Your task to perform on an android device: open app "Venmo" Image 0: 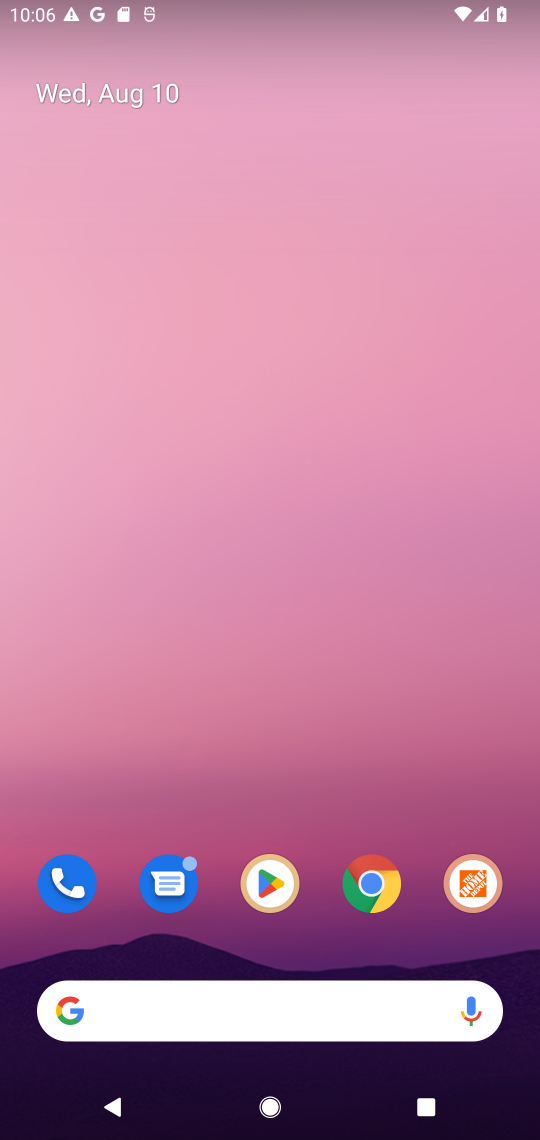
Step 0: press home button
Your task to perform on an android device: open app "Venmo" Image 1: 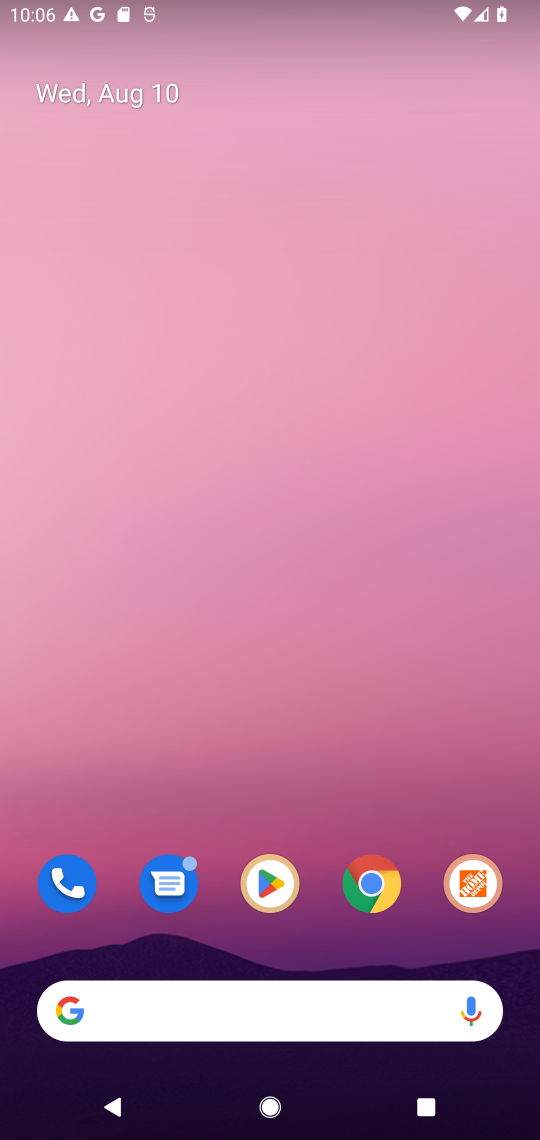
Step 1: drag from (423, 768) to (426, 91)
Your task to perform on an android device: open app "Venmo" Image 2: 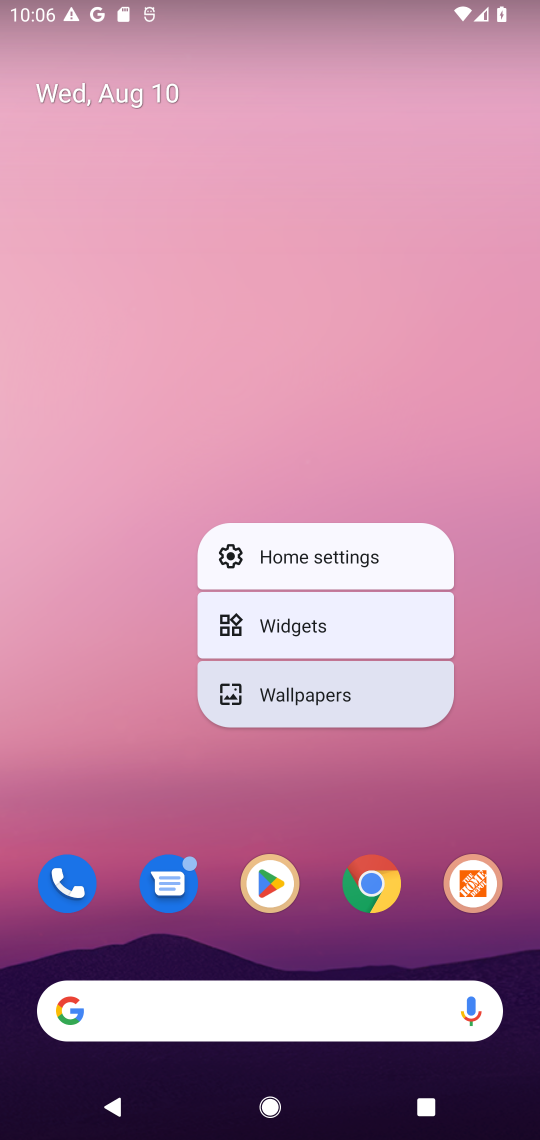
Step 2: click (484, 745)
Your task to perform on an android device: open app "Venmo" Image 3: 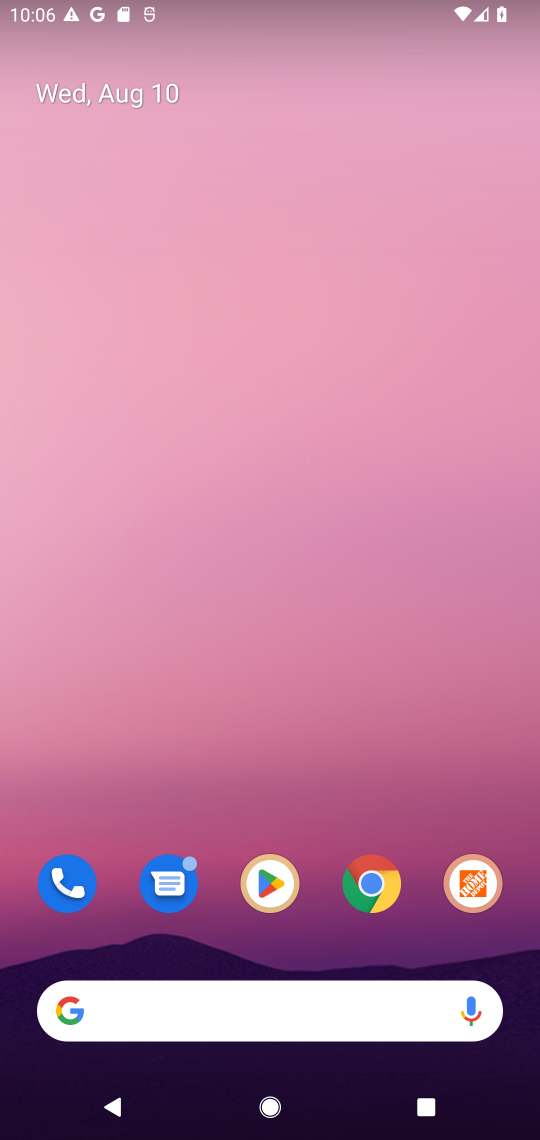
Step 3: drag from (379, 621) to (354, 51)
Your task to perform on an android device: open app "Venmo" Image 4: 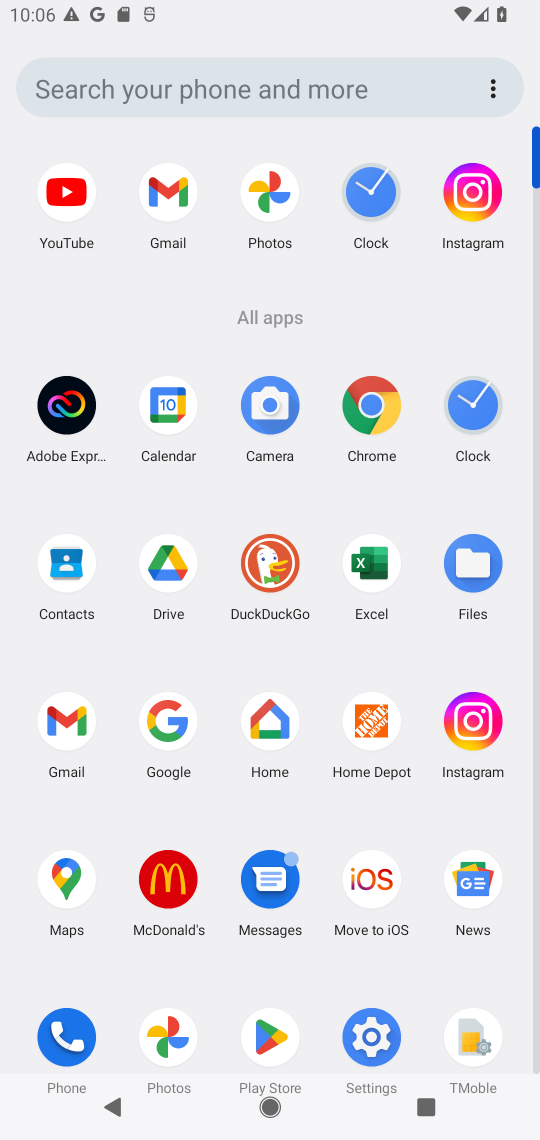
Step 4: click (255, 1035)
Your task to perform on an android device: open app "Venmo" Image 5: 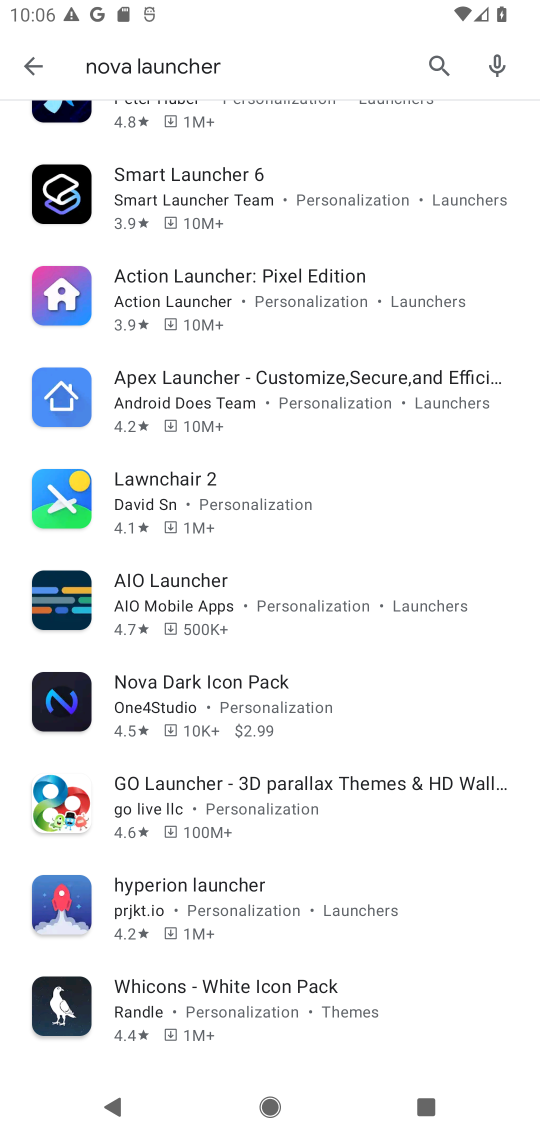
Step 5: click (439, 66)
Your task to perform on an android device: open app "Venmo" Image 6: 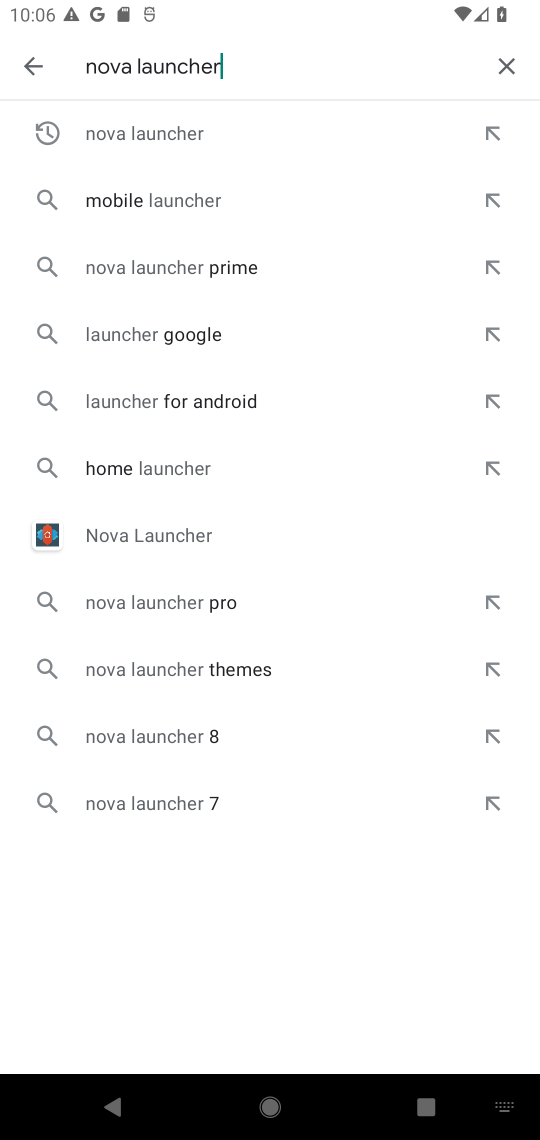
Step 6: click (508, 60)
Your task to perform on an android device: open app "Venmo" Image 7: 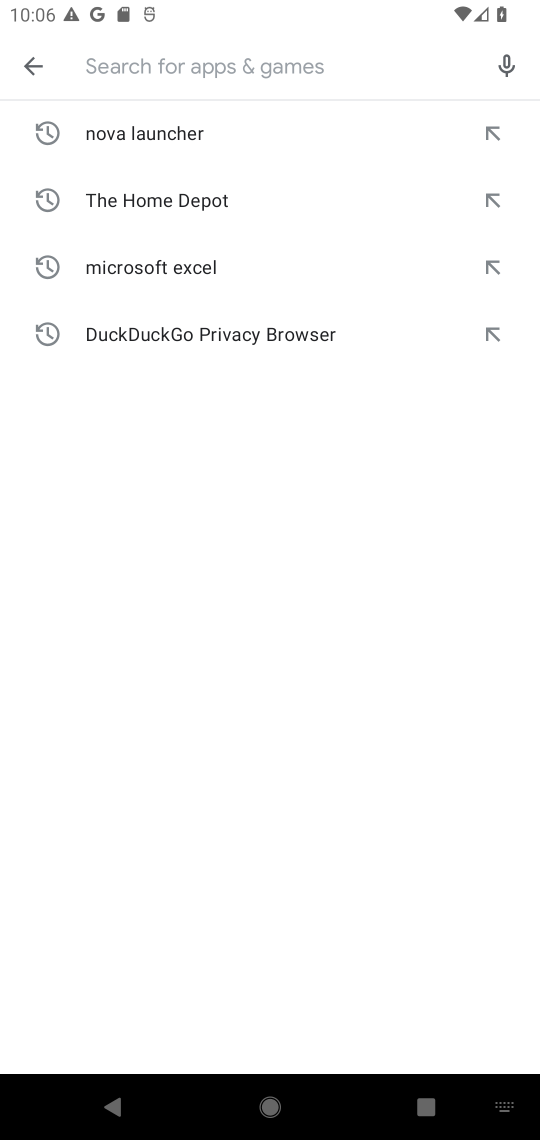
Step 7: press enter
Your task to perform on an android device: open app "Venmo" Image 8: 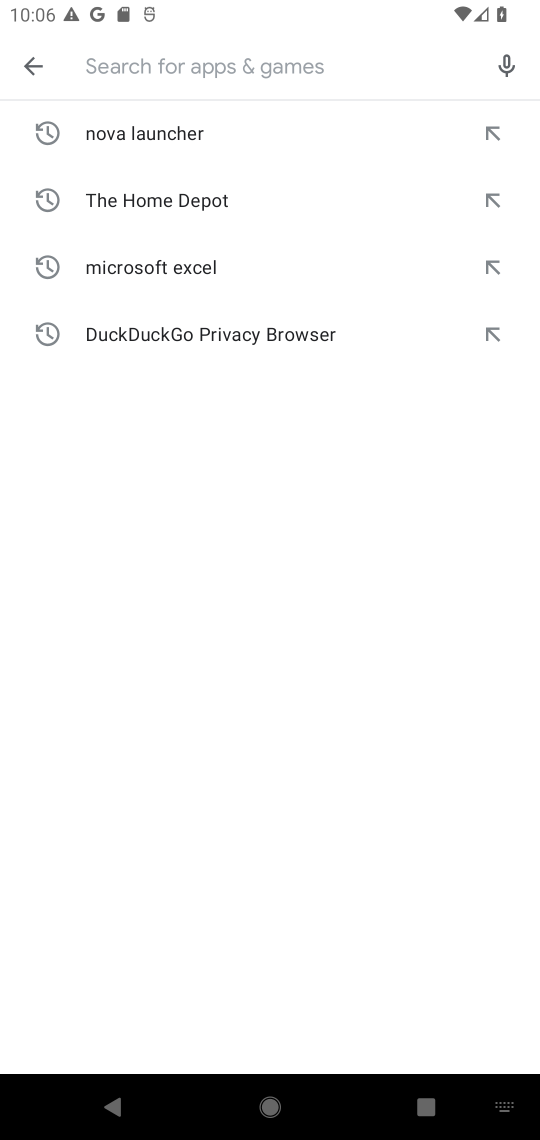
Step 8: type "venmo"
Your task to perform on an android device: open app "Venmo" Image 9: 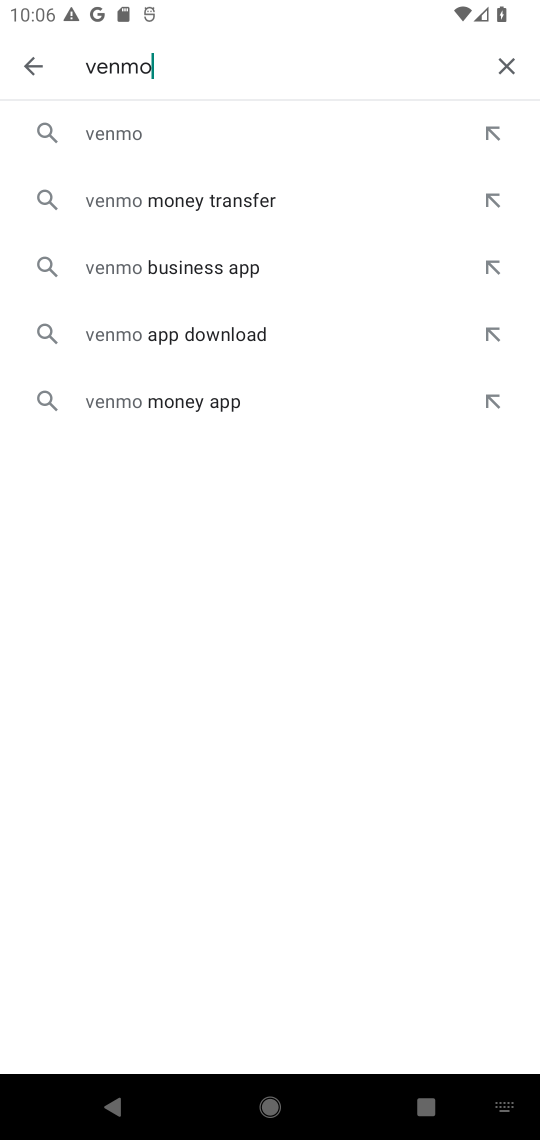
Step 9: click (167, 130)
Your task to perform on an android device: open app "Venmo" Image 10: 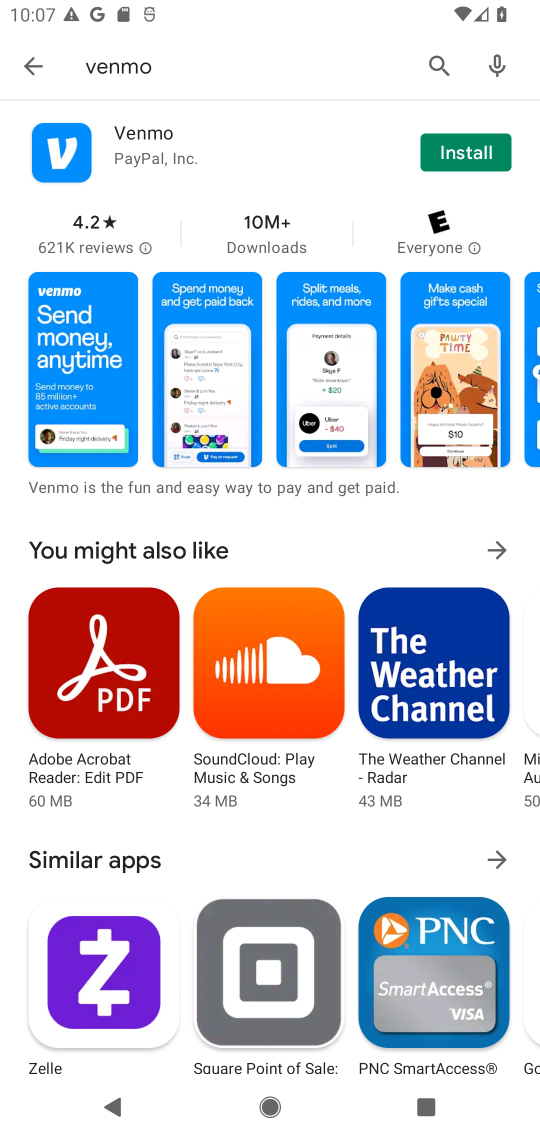
Step 10: task complete